Your task to perform on an android device: clear history in the chrome app Image 0: 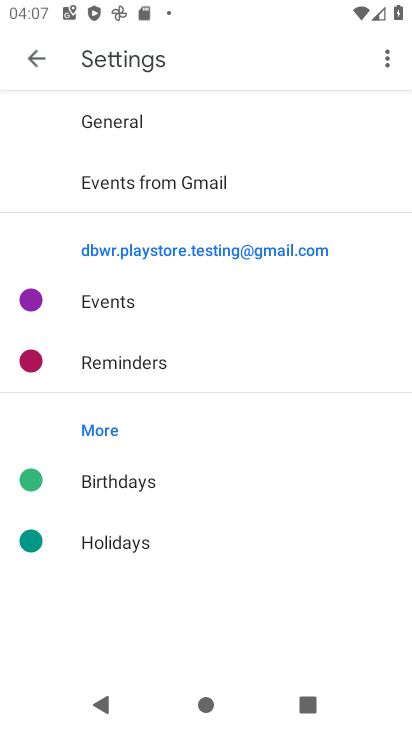
Step 0: press home button
Your task to perform on an android device: clear history in the chrome app Image 1: 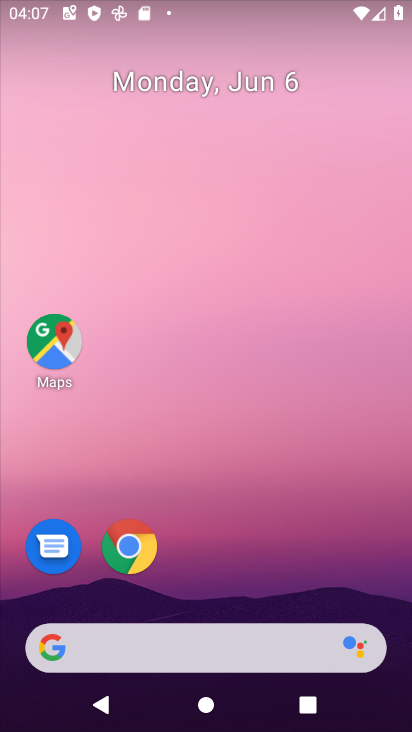
Step 1: drag from (264, 569) to (301, 176)
Your task to perform on an android device: clear history in the chrome app Image 2: 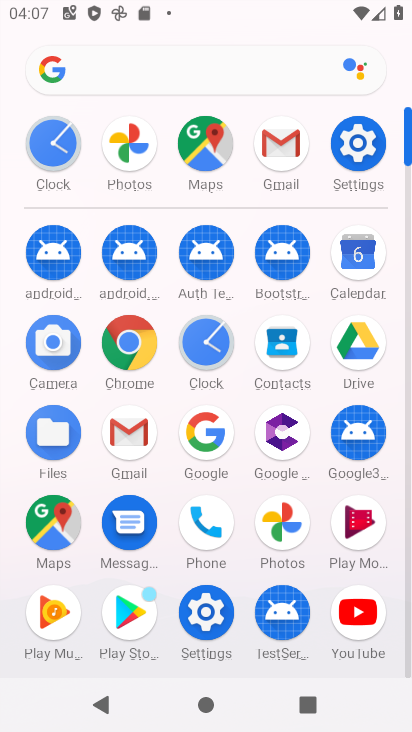
Step 2: click (141, 360)
Your task to perform on an android device: clear history in the chrome app Image 3: 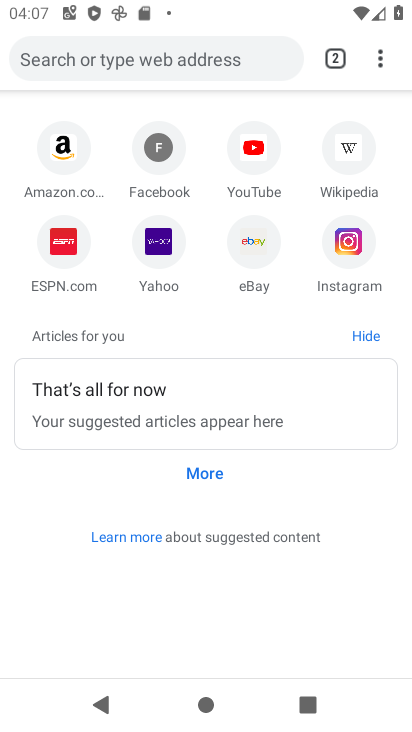
Step 3: click (371, 59)
Your task to perform on an android device: clear history in the chrome app Image 4: 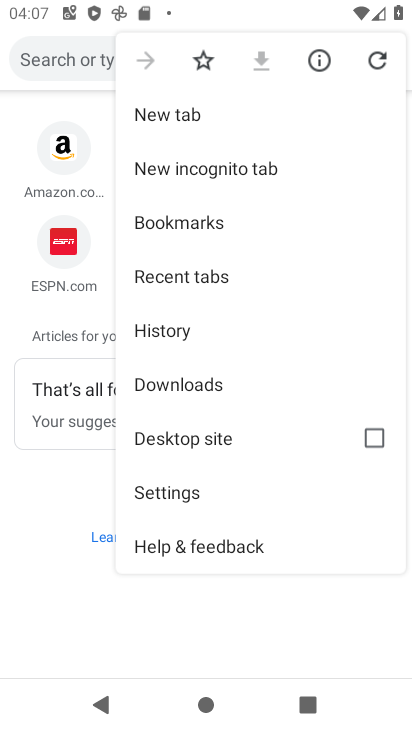
Step 4: click (224, 318)
Your task to perform on an android device: clear history in the chrome app Image 5: 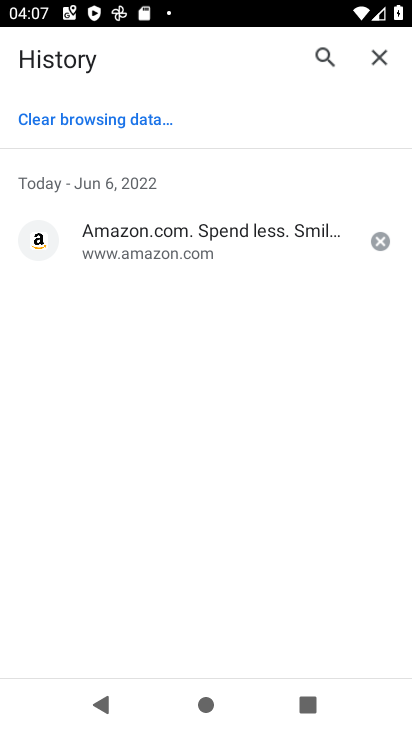
Step 5: click (100, 130)
Your task to perform on an android device: clear history in the chrome app Image 6: 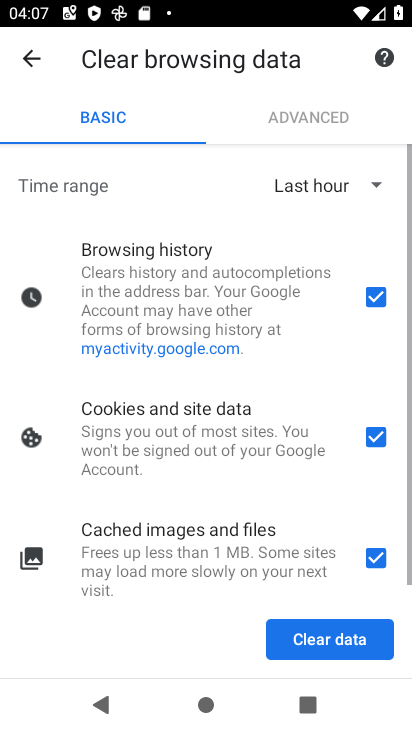
Step 6: click (282, 632)
Your task to perform on an android device: clear history in the chrome app Image 7: 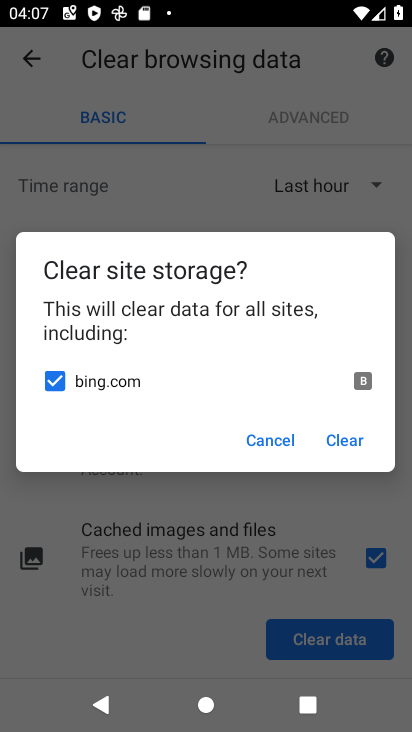
Step 7: click (330, 439)
Your task to perform on an android device: clear history in the chrome app Image 8: 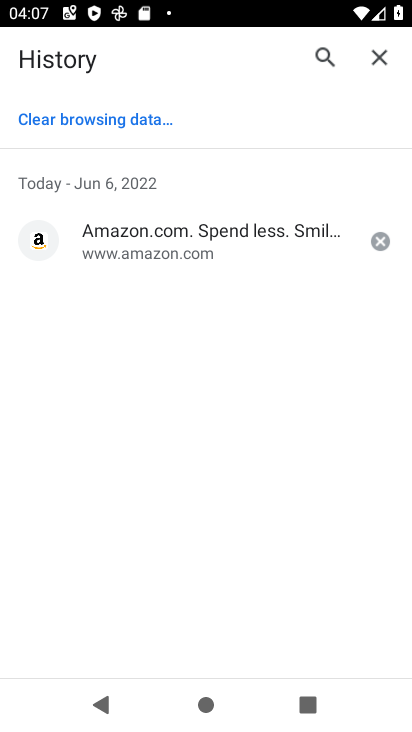
Step 8: task complete